Your task to perform on an android device: turn off notifications in google photos Image 0: 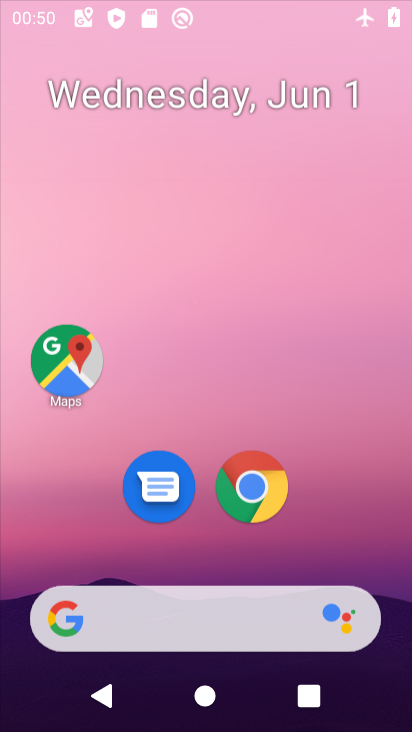
Step 0: click (170, 589)
Your task to perform on an android device: turn off notifications in google photos Image 1: 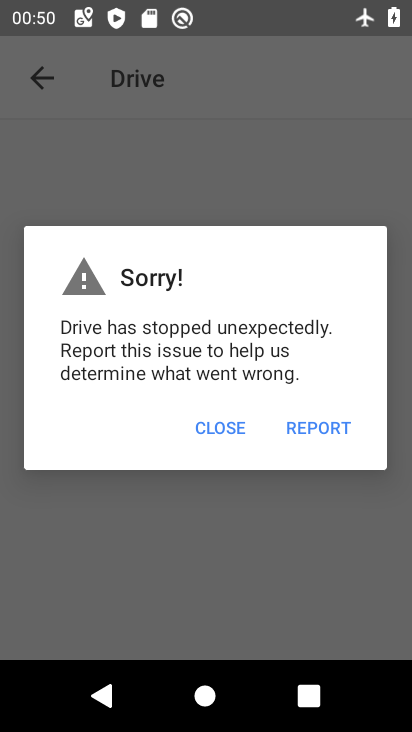
Step 1: press home button
Your task to perform on an android device: turn off notifications in google photos Image 2: 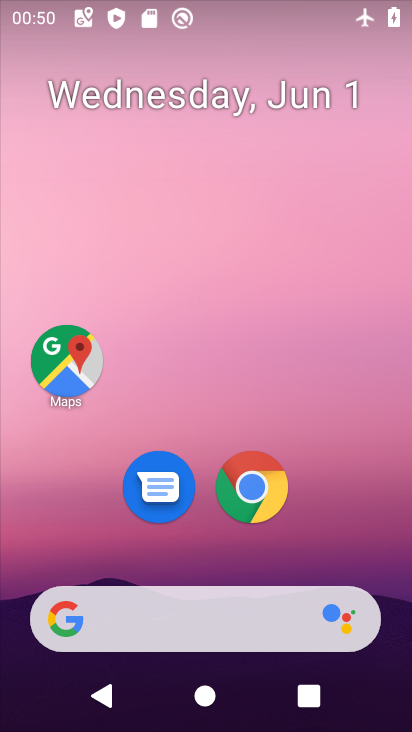
Step 2: drag from (206, 553) to (190, 124)
Your task to perform on an android device: turn off notifications in google photos Image 3: 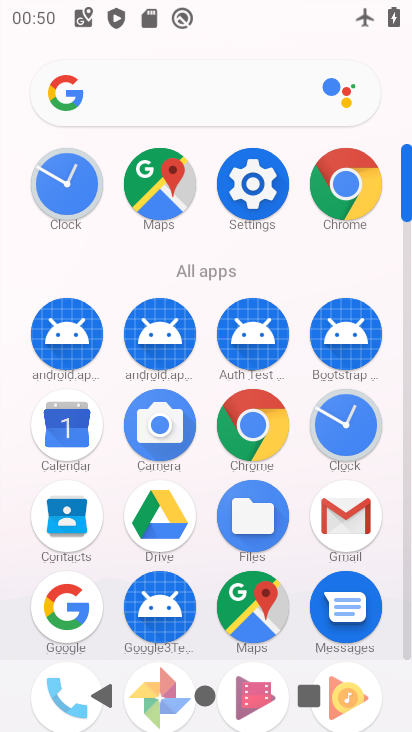
Step 3: drag from (187, 562) to (198, 269)
Your task to perform on an android device: turn off notifications in google photos Image 4: 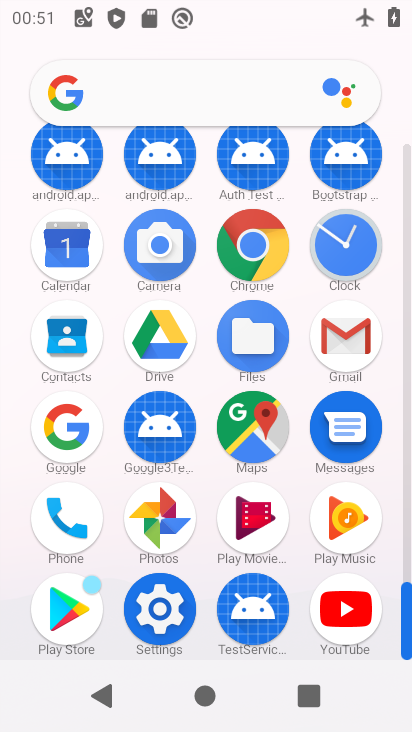
Step 4: click (159, 523)
Your task to perform on an android device: turn off notifications in google photos Image 5: 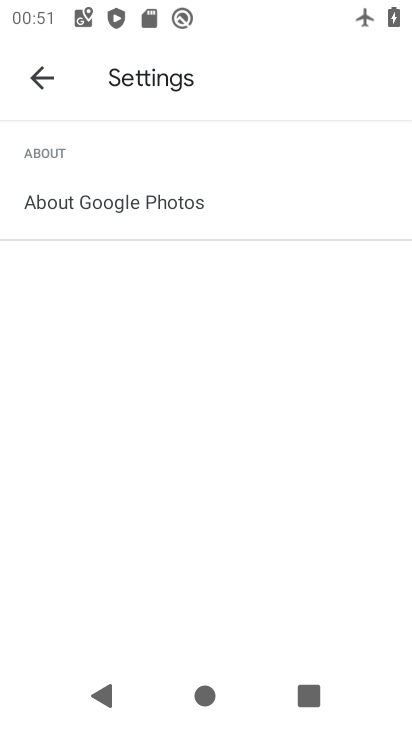
Step 5: click (42, 74)
Your task to perform on an android device: turn off notifications in google photos Image 6: 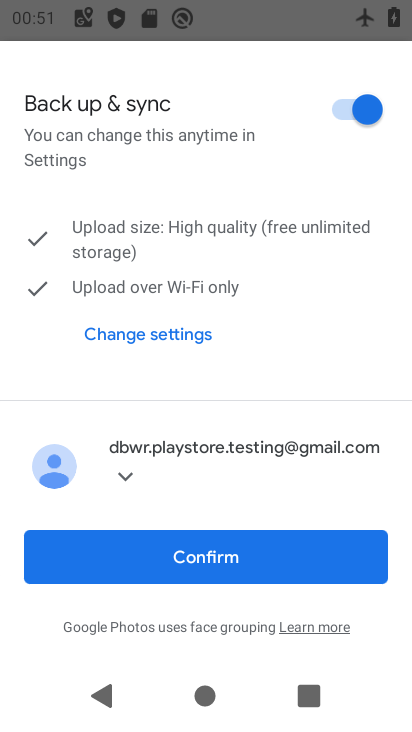
Step 6: click (231, 552)
Your task to perform on an android device: turn off notifications in google photos Image 7: 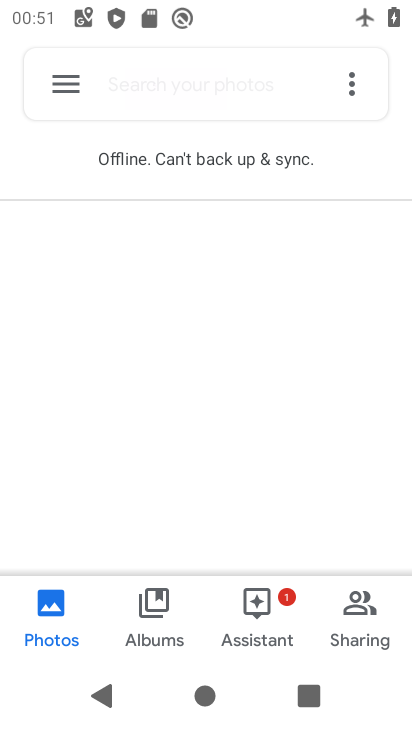
Step 7: click (354, 90)
Your task to perform on an android device: turn off notifications in google photos Image 8: 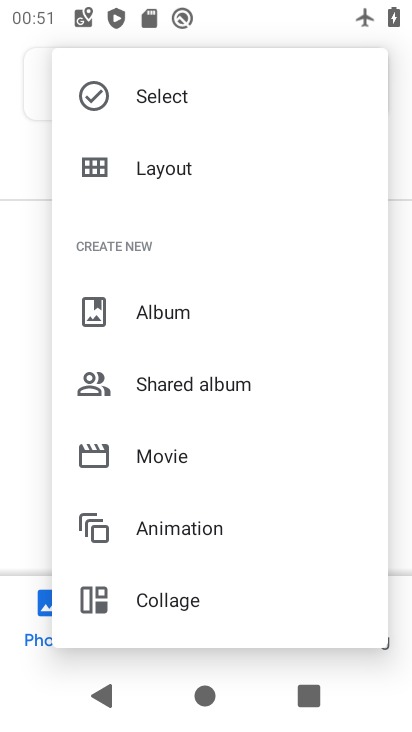
Step 8: drag from (168, 584) to (209, 260)
Your task to perform on an android device: turn off notifications in google photos Image 9: 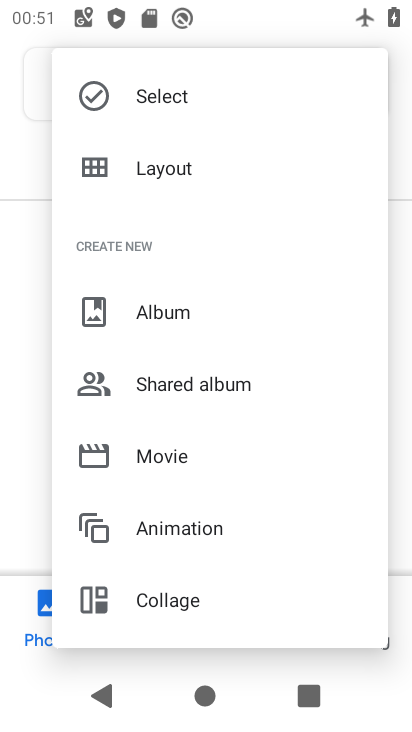
Step 9: click (21, 212)
Your task to perform on an android device: turn off notifications in google photos Image 10: 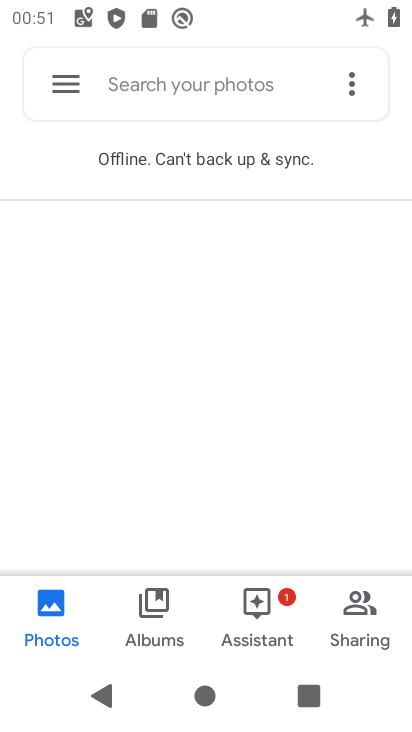
Step 10: click (60, 86)
Your task to perform on an android device: turn off notifications in google photos Image 11: 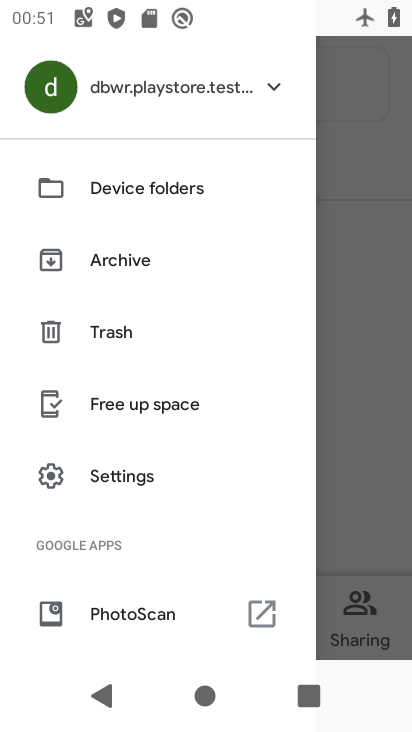
Step 11: click (123, 486)
Your task to perform on an android device: turn off notifications in google photos Image 12: 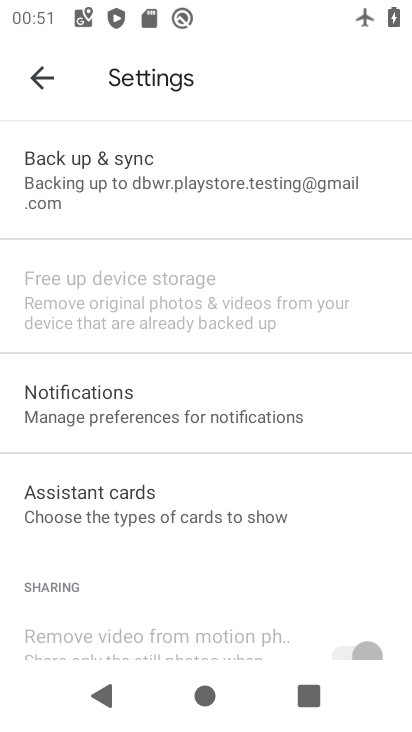
Step 12: click (187, 416)
Your task to perform on an android device: turn off notifications in google photos Image 13: 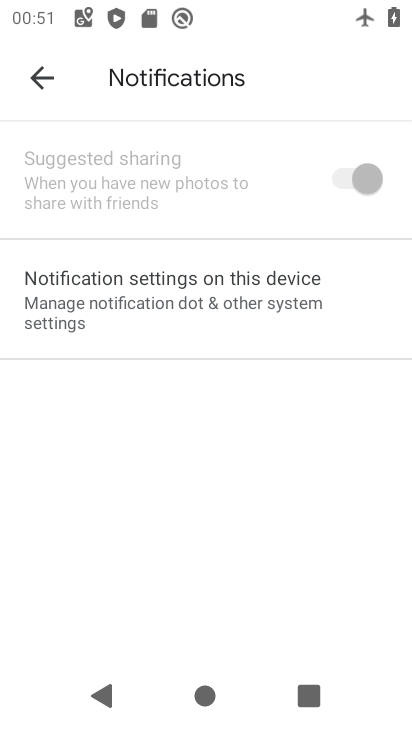
Step 13: click (237, 294)
Your task to perform on an android device: turn off notifications in google photos Image 14: 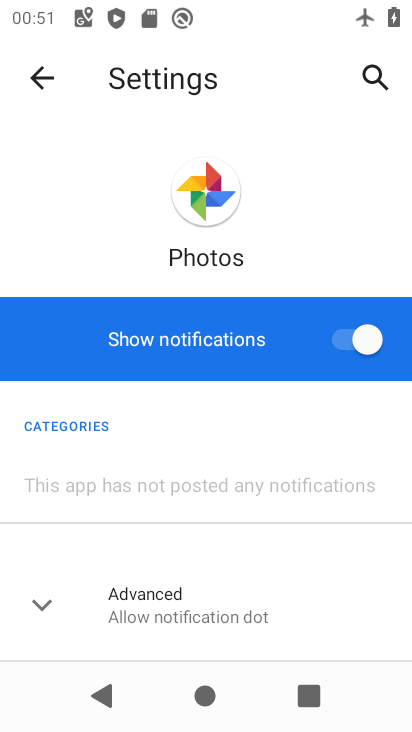
Step 14: click (324, 340)
Your task to perform on an android device: turn off notifications in google photos Image 15: 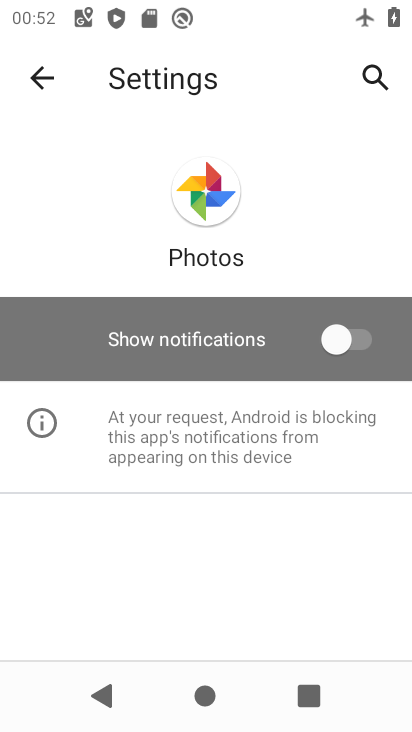
Step 15: task complete